Your task to perform on an android device: install app "The Home Depot" Image 0: 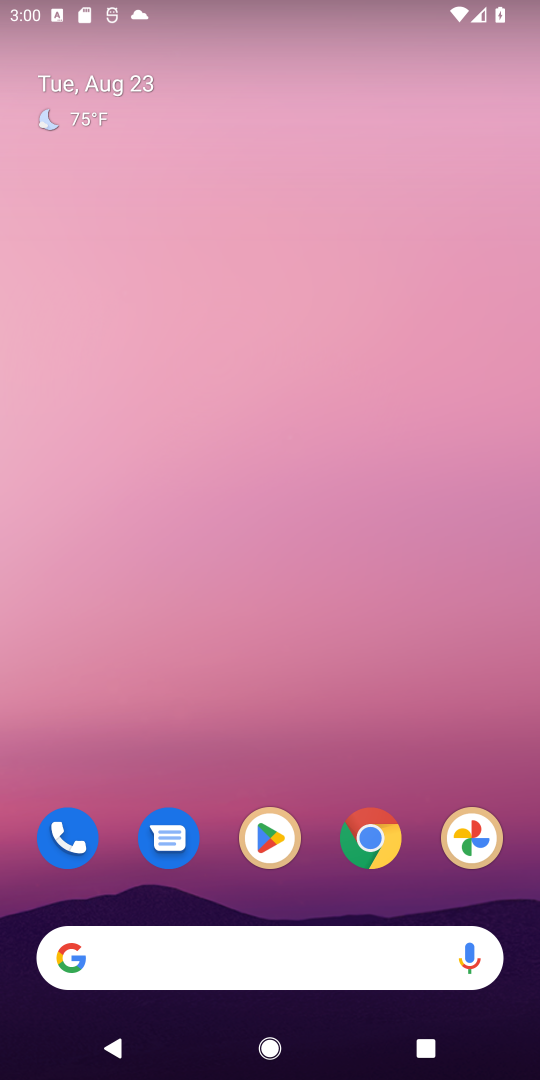
Step 0: click (265, 830)
Your task to perform on an android device: install app "The Home Depot" Image 1: 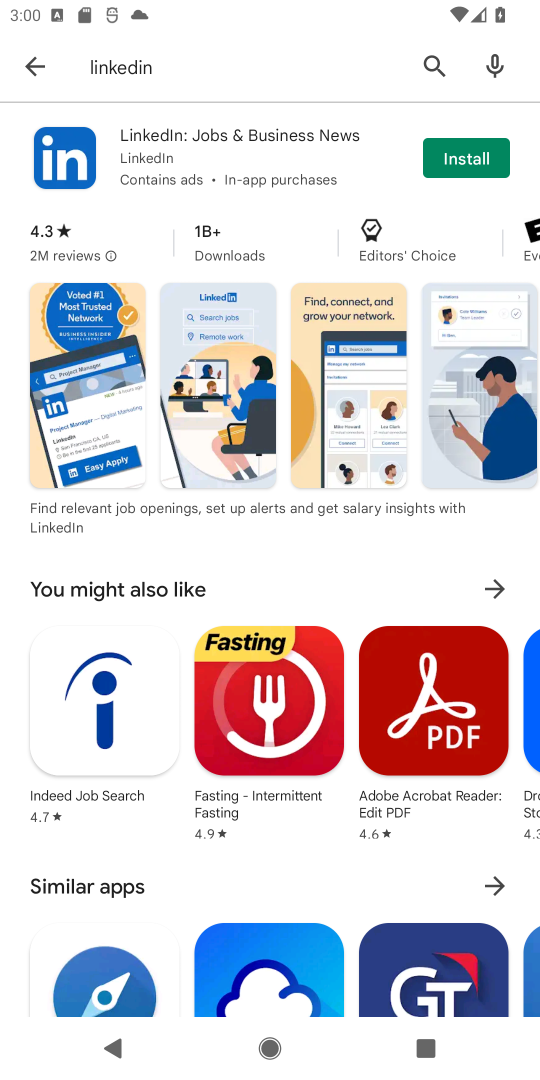
Step 1: click (27, 69)
Your task to perform on an android device: install app "The Home Depot" Image 2: 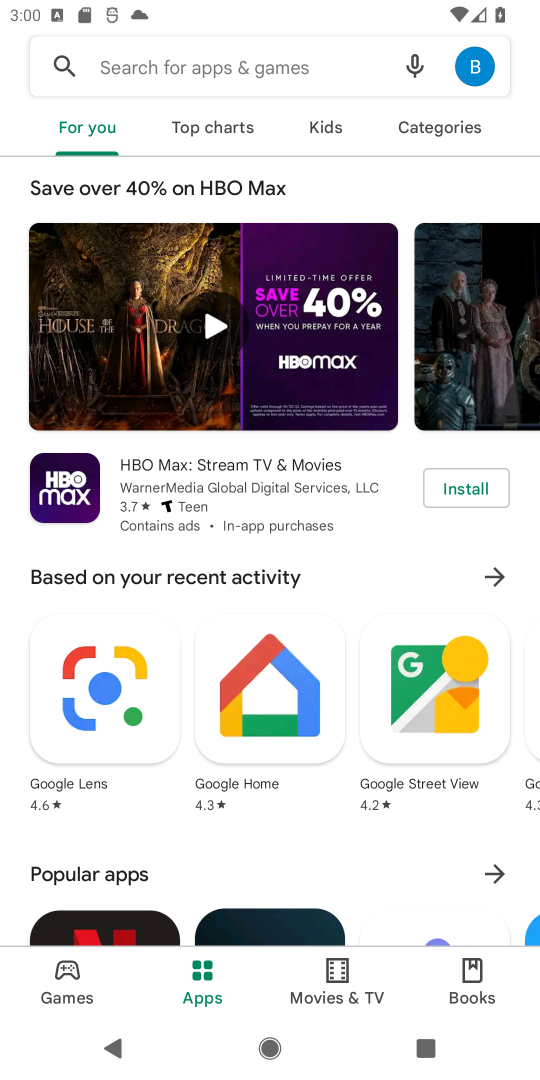
Step 2: click (191, 49)
Your task to perform on an android device: install app "The Home Depot" Image 3: 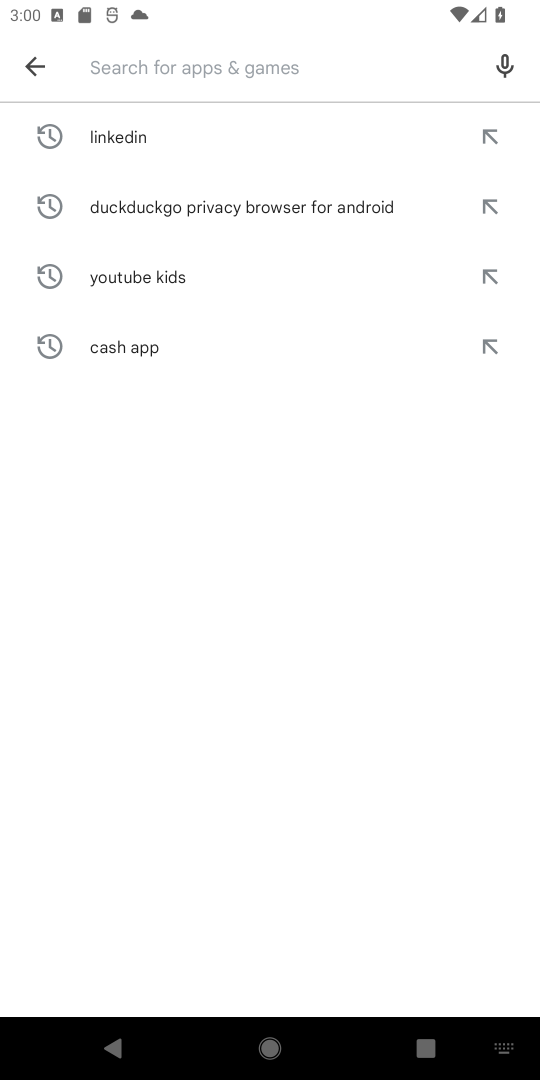
Step 3: type "The Home Depot"
Your task to perform on an android device: install app "The Home Depot" Image 4: 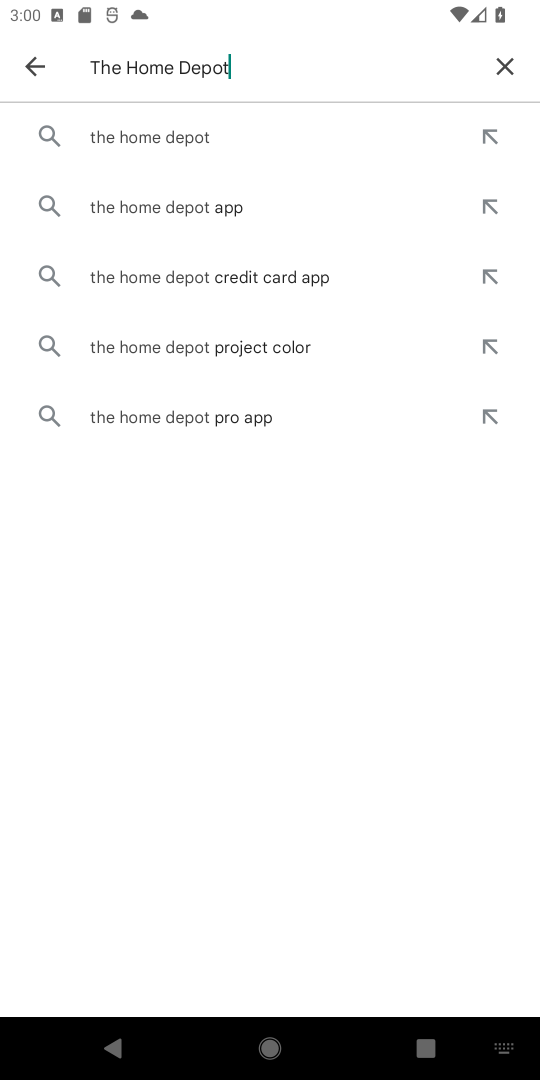
Step 4: click (133, 134)
Your task to perform on an android device: install app "The Home Depot" Image 5: 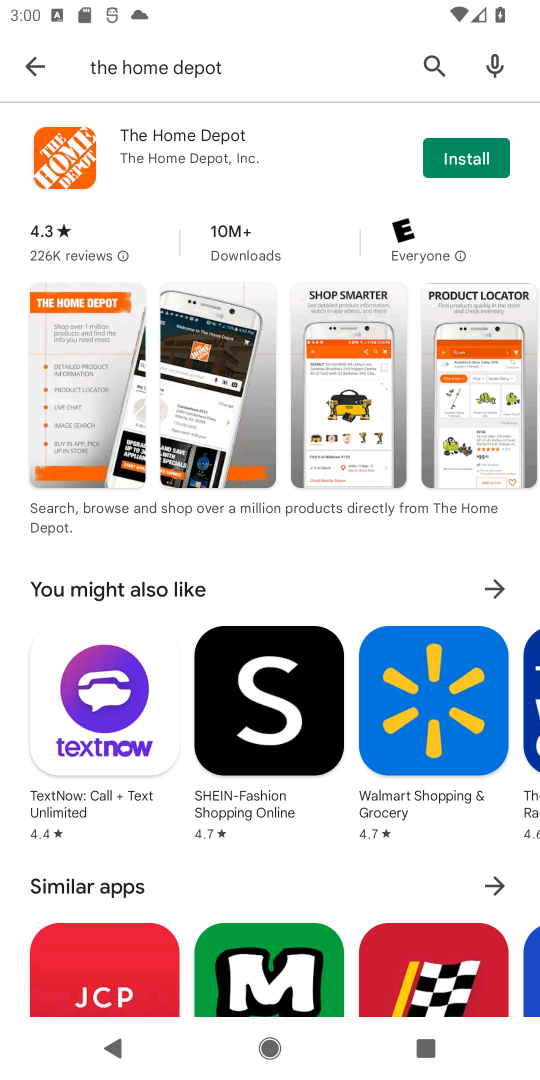
Step 5: click (454, 169)
Your task to perform on an android device: install app "The Home Depot" Image 6: 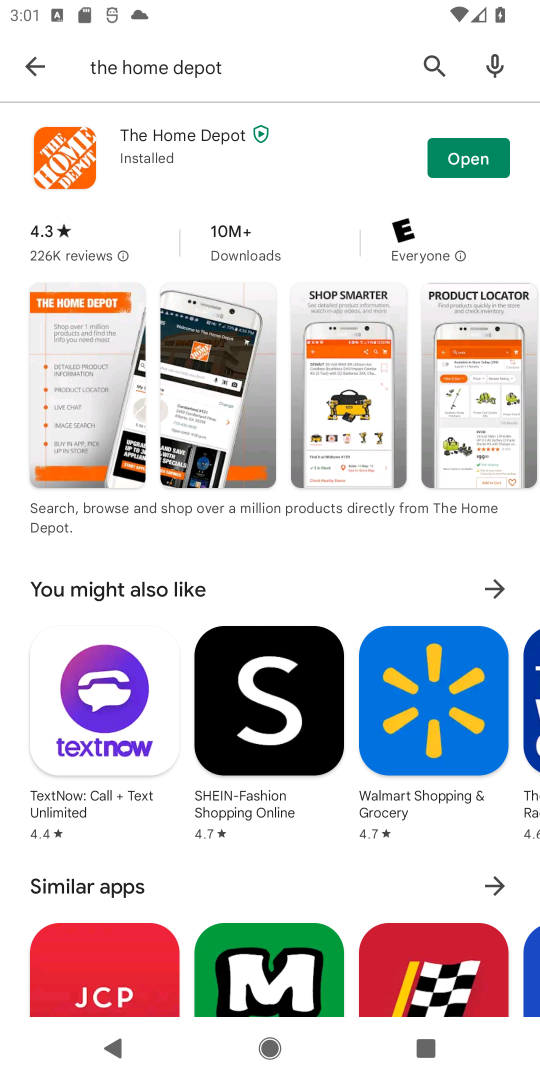
Step 6: task complete